Your task to perform on an android device: Open eBay Image 0: 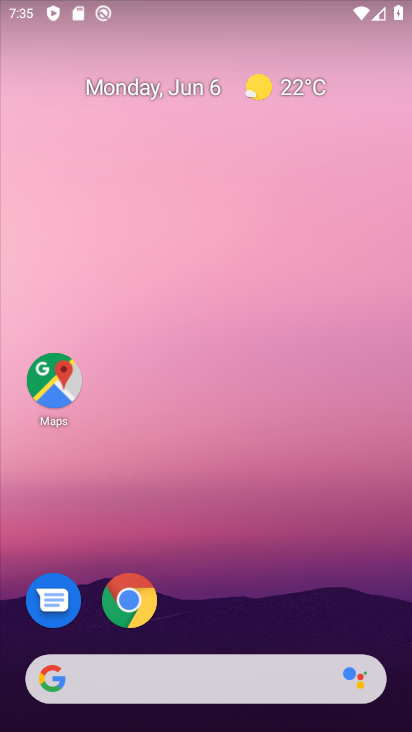
Step 0: click (130, 597)
Your task to perform on an android device: Open eBay Image 1: 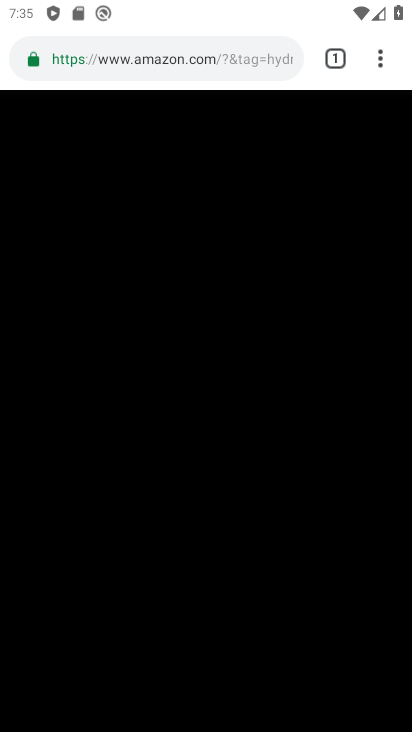
Step 1: click (248, 60)
Your task to perform on an android device: Open eBay Image 2: 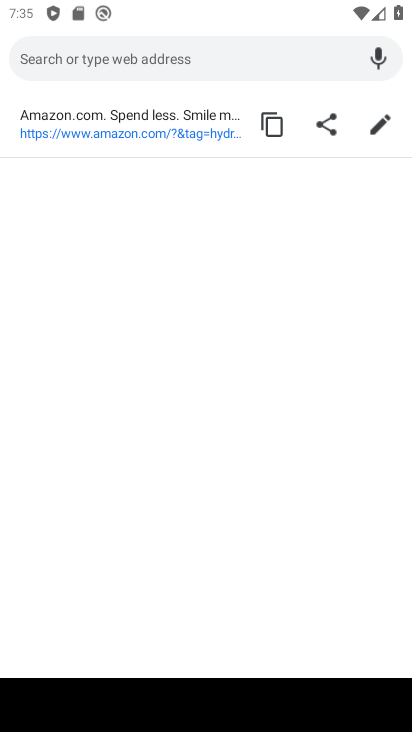
Step 2: click (246, 60)
Your task to perform on an android device: Open eBay Image 3: 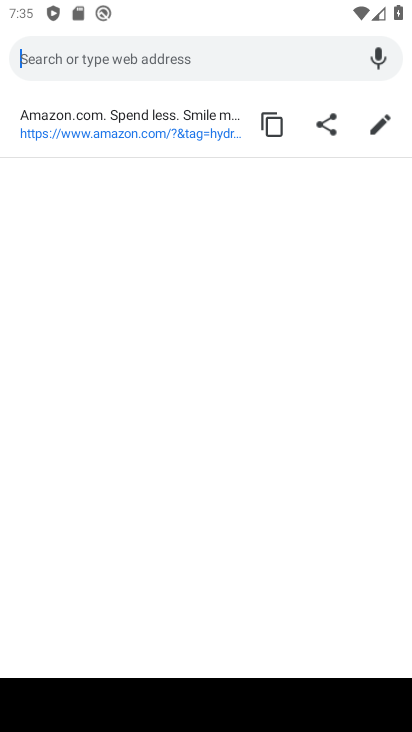
Step 3: type "eBay"
Your task to perform on an android device: Open eBay Image 4: 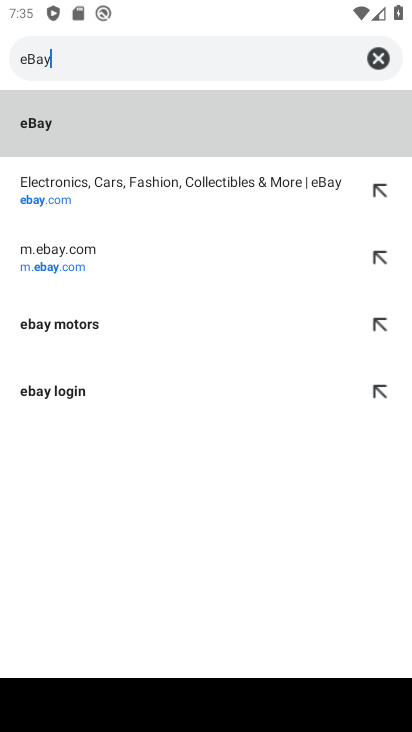
Step 4: click (141, 142)
Your task to perform on an android device: Open eBay Image 5: 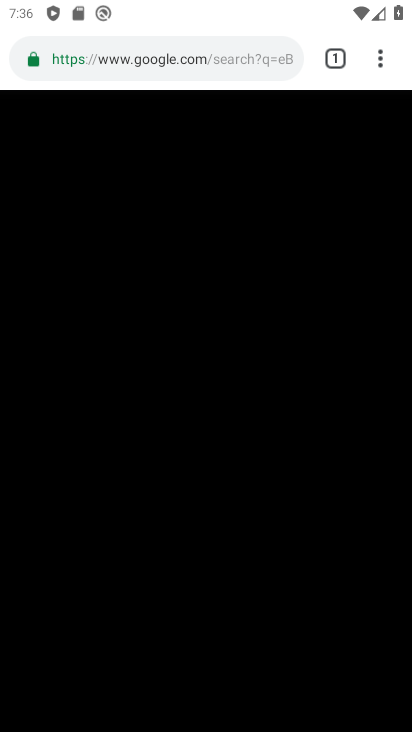
Step 5: click (204, 61)
Your task to perform on an android device: Open eBay Image 6: 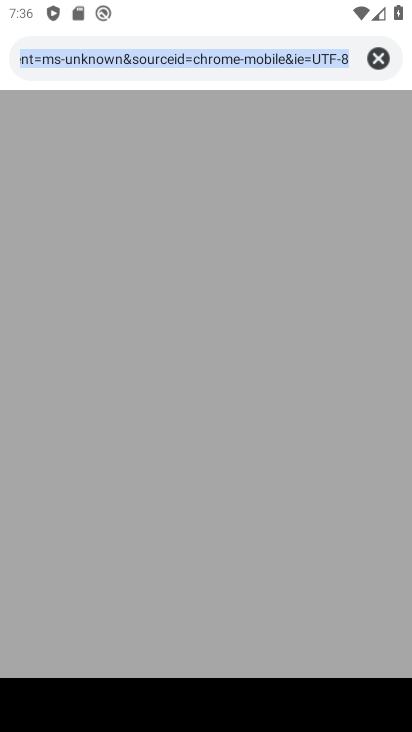
Step 6: click (378, 56)
Your task to perform on an android device: Open eBay Image 7: 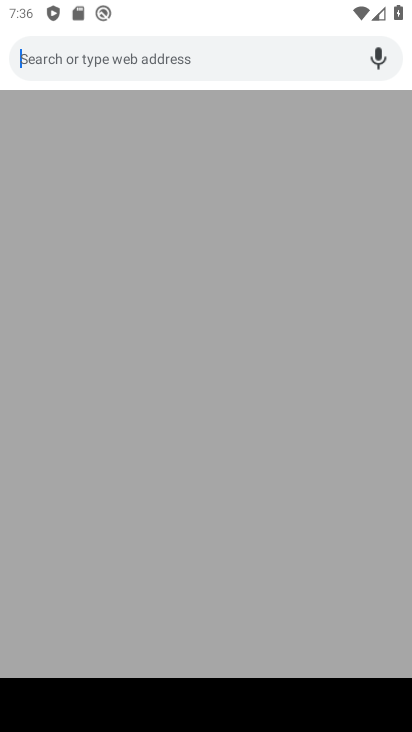
Step 7: type "eBay"
Your task to perform on an android device: Open eBay Image 8: 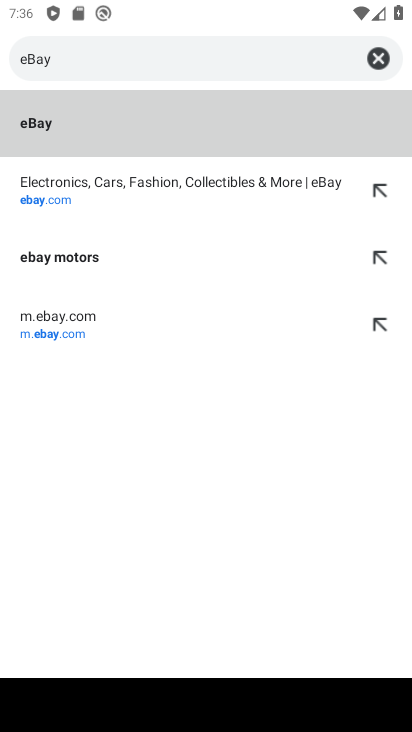
Step 8: click (132, 189)
Your task to perform on an android device: Open eBay Image 9: 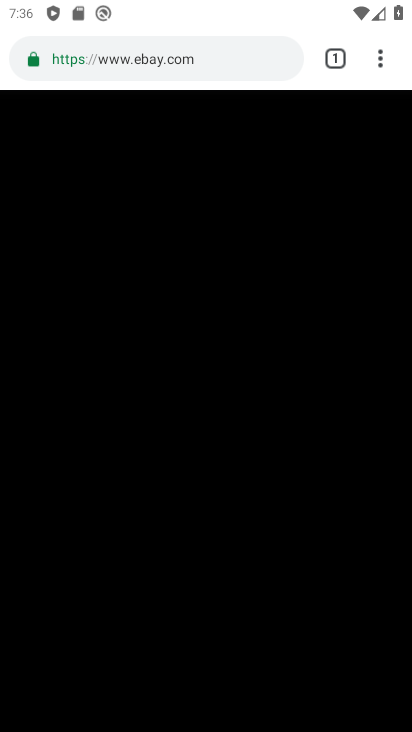
Step 9: task complete